Your task to perform on an android device: What's on my calendar today? Image 0: 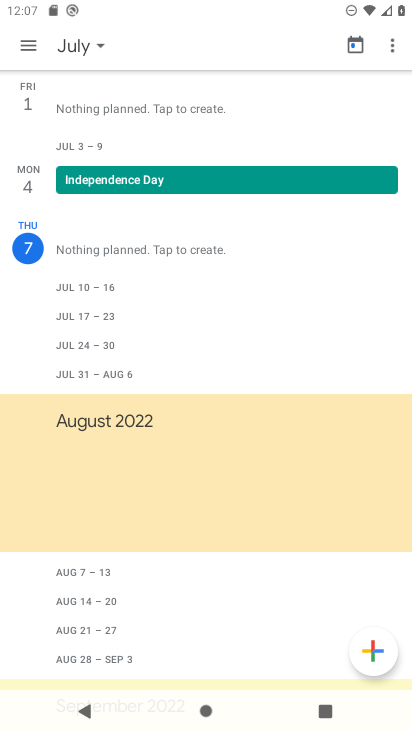
Step 0: press home button
Your task to perform on an android device: What's on my calendar today? Image 1: 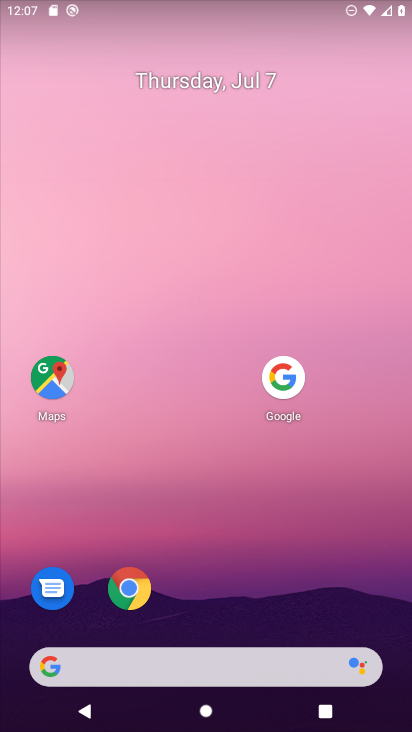
Step 1: drag from (190, 674) to (265, 167)
Your task to perform on an android device: What's on my calendar today? Image 2: 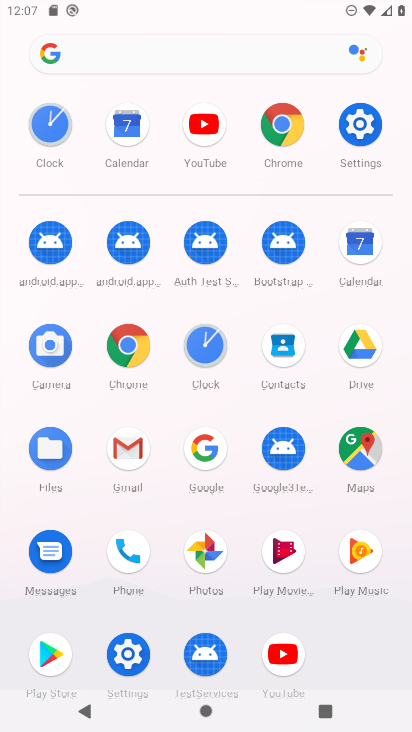
Step 2: click (359, 242)
Your task to perform on an android device: What's on my calendar today? Image 3: 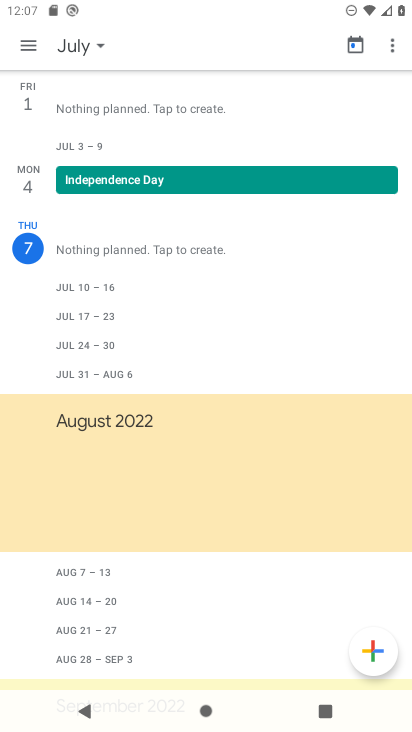
Step 3: click (76, 44)
Your task to perform on an android device: What's on my calendar today? Image 4: 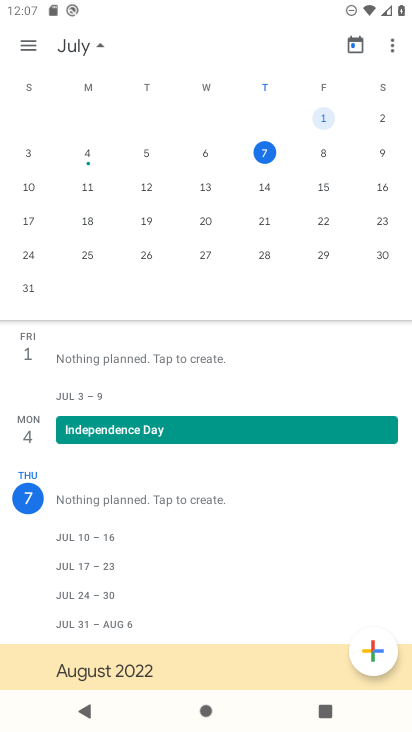
Step 4: click (265, 150)
Your task to perform on an android device: What's on my calendar today? Image 5: 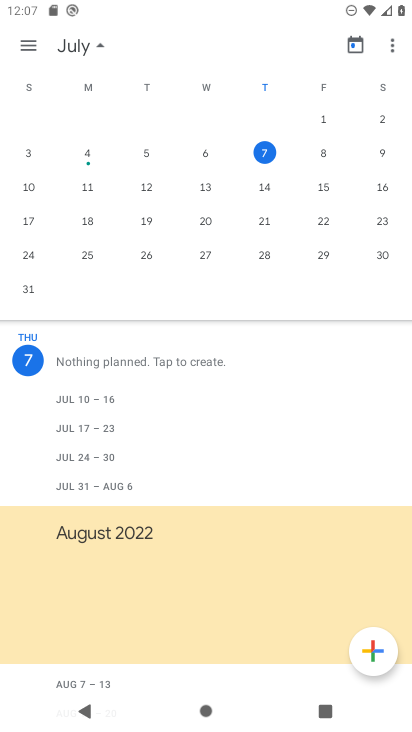
Step 5: click (30, 45)
Your task to perform on an android device: What's on my calendar today? Image 6: 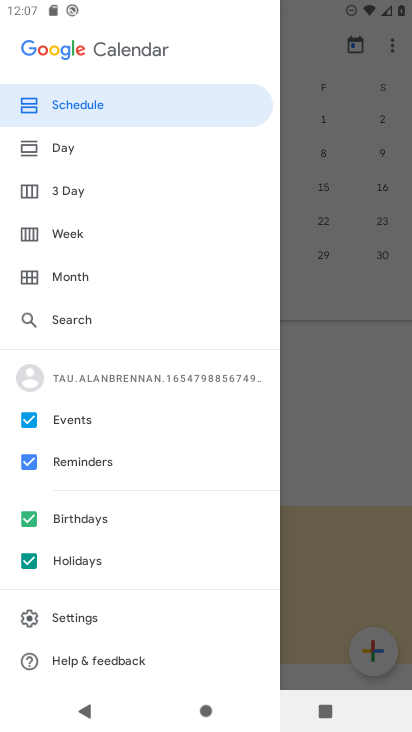
Step 6: click (119, 104)
Your task to perform on an android device: What's on my calendar today? Image 7: 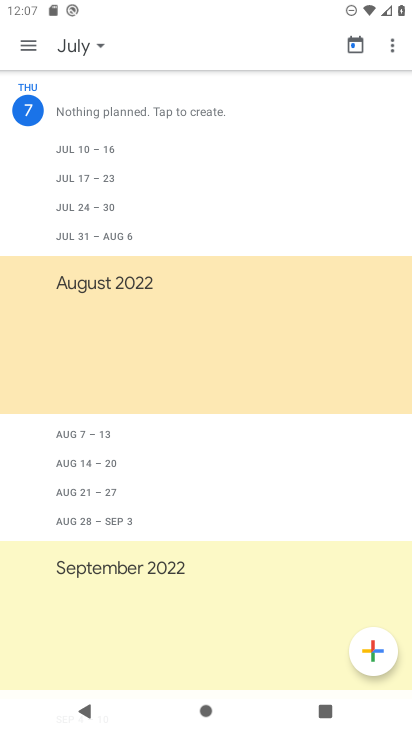
Step 7: task complete